Your task to perform on an android device: Go to Maps Image 0: 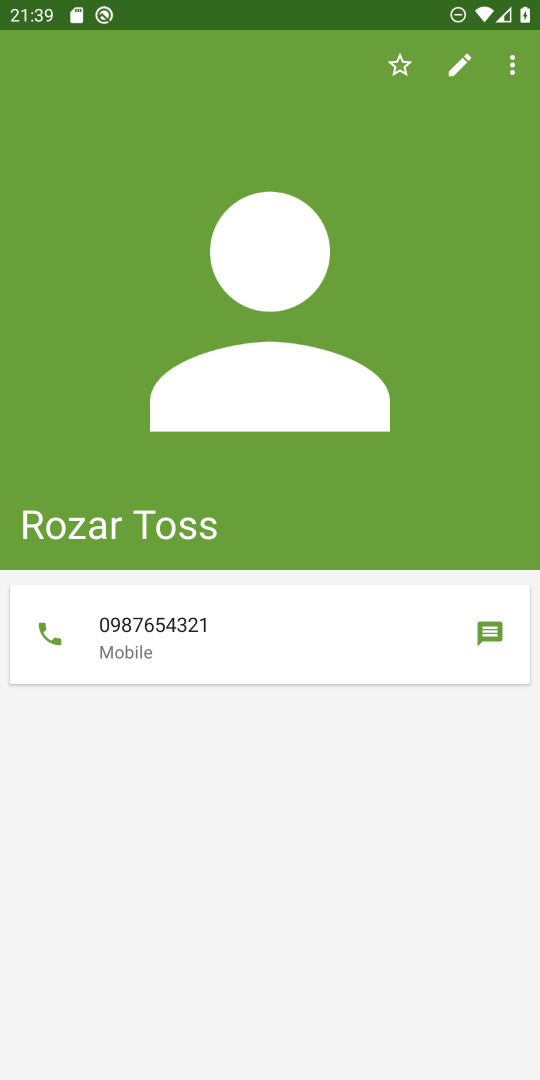
Step 0: press home button
Your task to perform on an android device: Go to Maps Image 1: 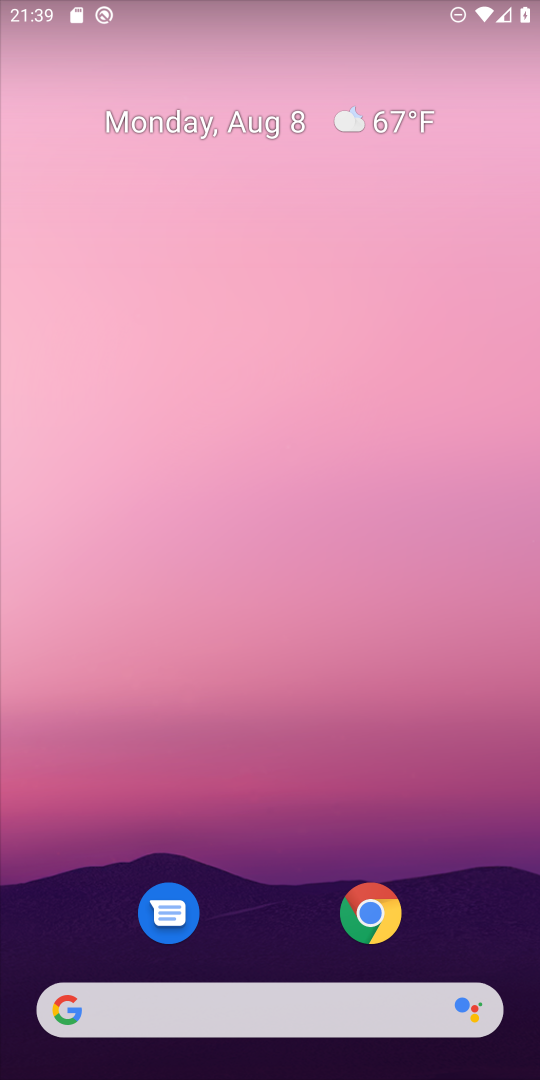
Step 1: drag from (251, 1021) to (230, 202)
Your task to perform on an android device: Go to Maps Image 2: 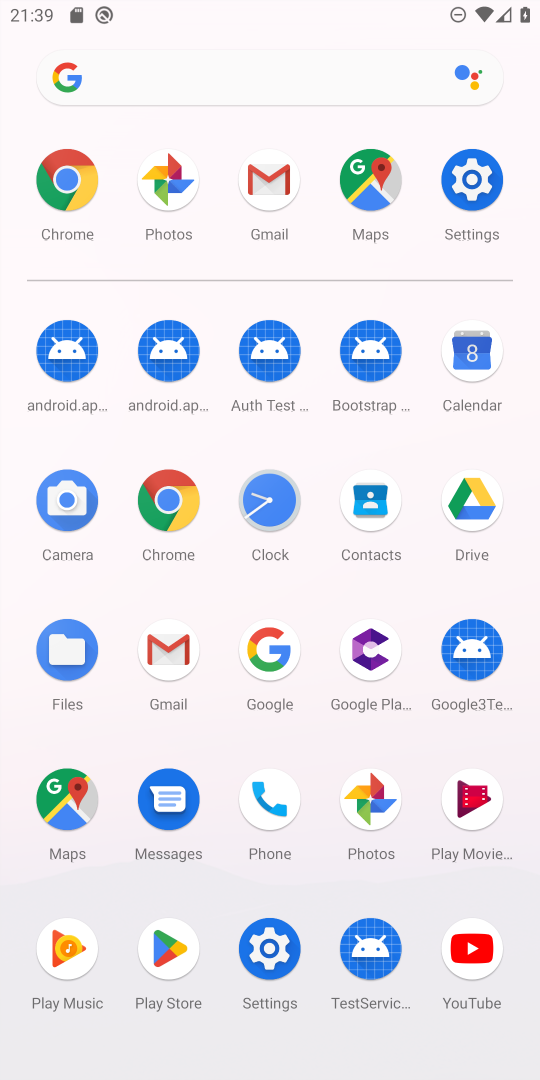
Step 2: click (370, 187)
Your task to perform on an android device: Go to Maps Image 3: 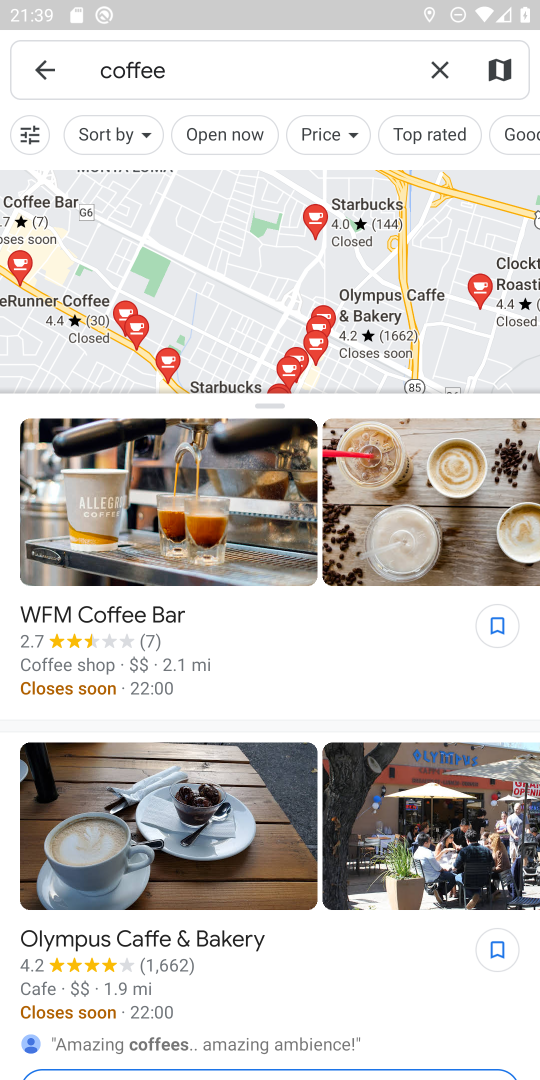
Step 3: task complete